Your task to perform on an android device: change notification settings in the gmail app Image 0: 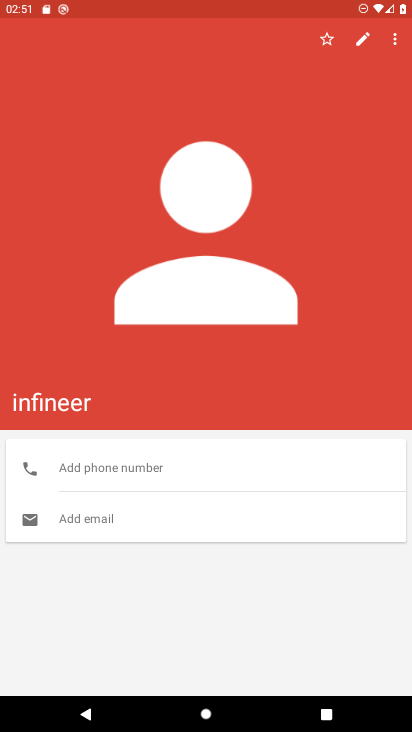
Step 0: press home button
Your task to perform on an android device: change notification settings in the gmail app Image 1: 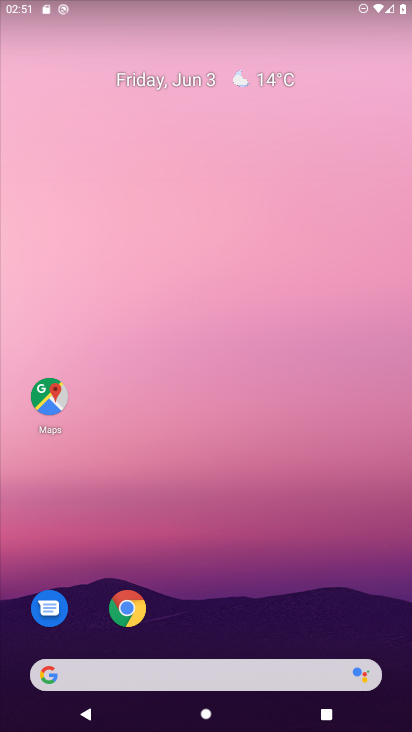
Step 1: drag from (265, 588) to (198, 131)
Your task to perform on an android device: change notification settings in the gmail app Image 2: 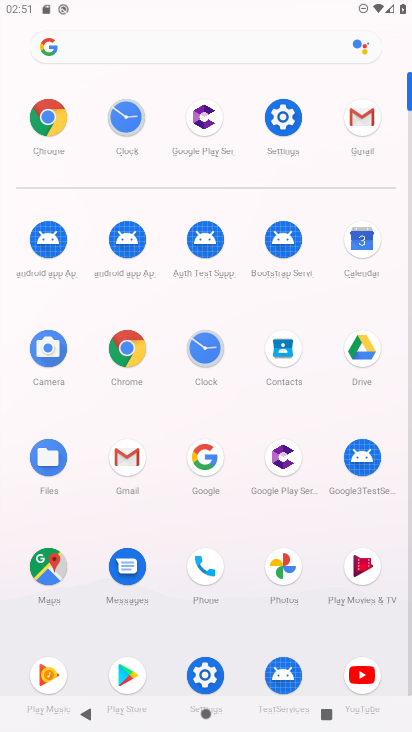
Step 2: click (369, 115)
Your task to perform on an android device: change notification settings in the gmail app Image 3: 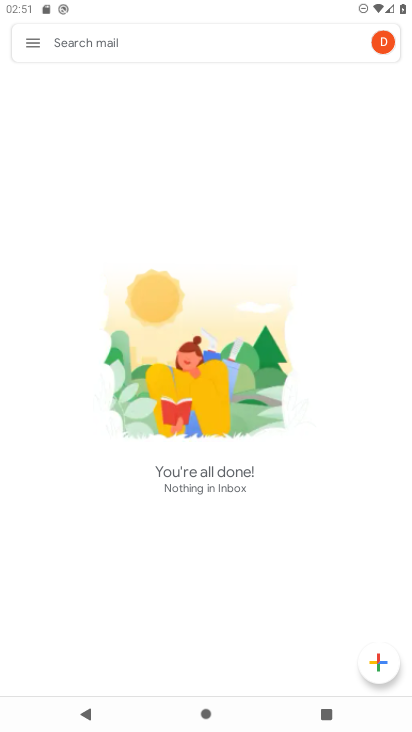
Step 3: click (35, 37)
Your task to perform on an android device: change notification settings in the gmail app Image 4: 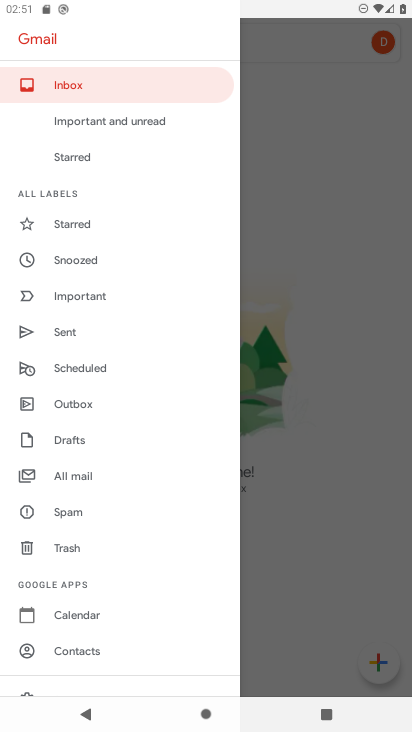
Step 4: drag from (72, 608) to (97, 217)
Your task to perform on an android device: change notification settings in the gmail app Image 5: 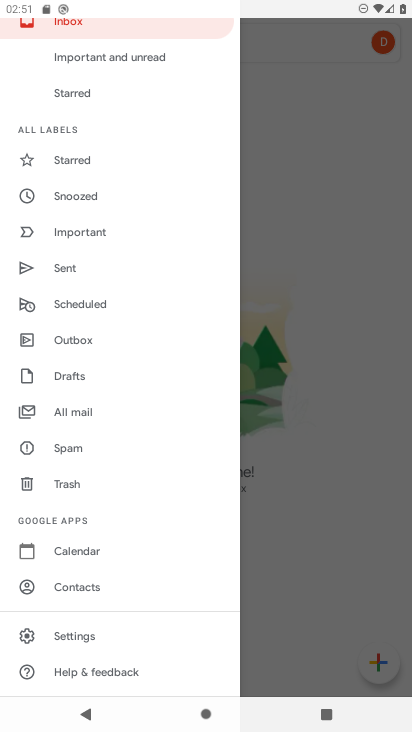
Step 5: click (69, 639)
Your task to perform on an android device: change notification settings in the gmail app Image 6: 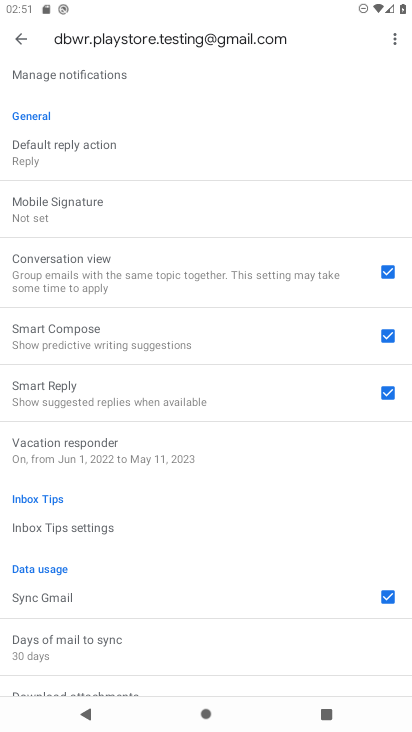
Step 6: drag from (73, 138) to (85, 675)
Your task to perform on an android device: change notification settings in the gmail app Image 7: 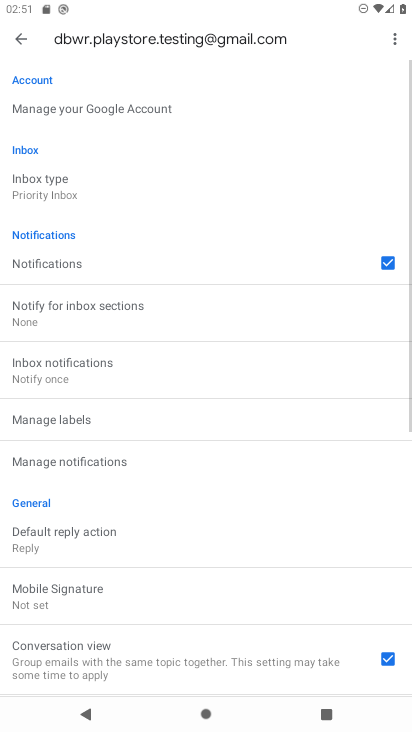
Step 7: click (67, 462)
Your task to perform on an android device: change notification settings in the gmail app Image 8: 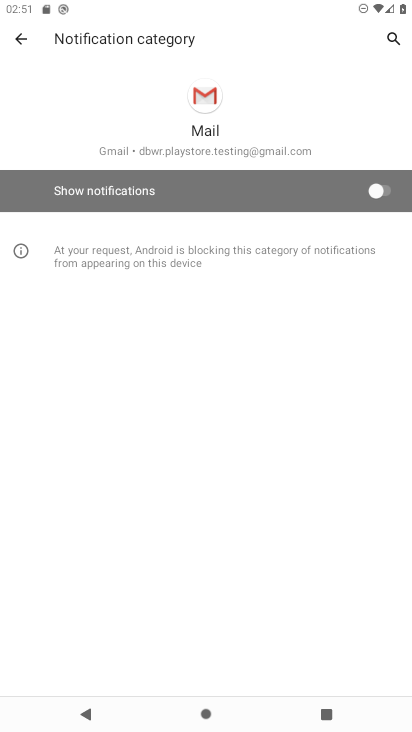
Step 8: click (368, 189)
Your task to perform on an android device: change notification settings in the gmail app Image 9: 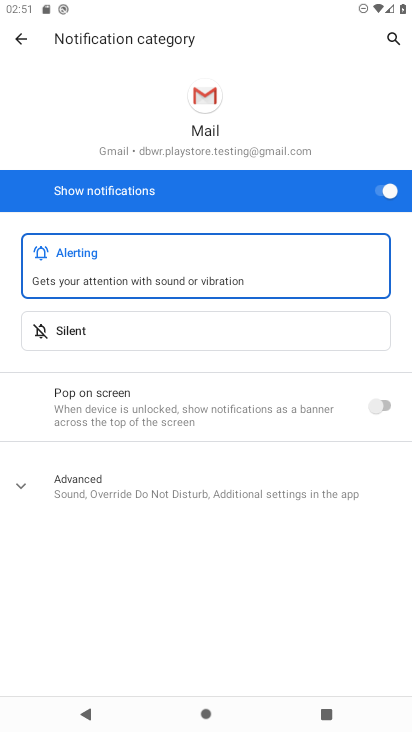
Step 9: task complete